Your task to perform on an android device: turn on notifications settings in the gmail app Image 0: 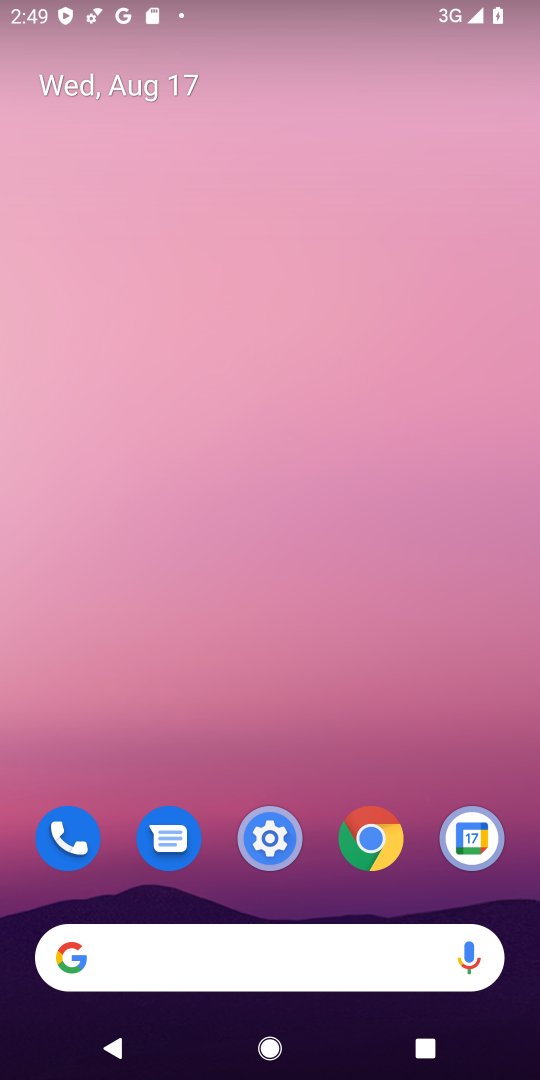
Step 0: drag from (301, 848) to (453, 21)
Your task to perform on an android device: turn on notifications settings in the gmail app Image 1: 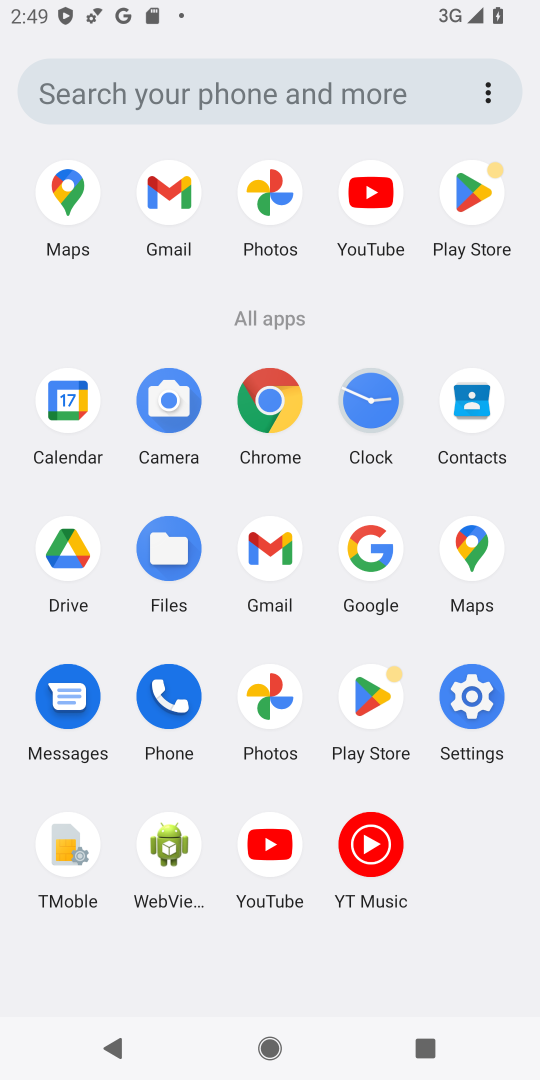
Step 1: click (272, 556)
Your task to perform on an android device: turn on notifications settings in the gmail app Image 2: 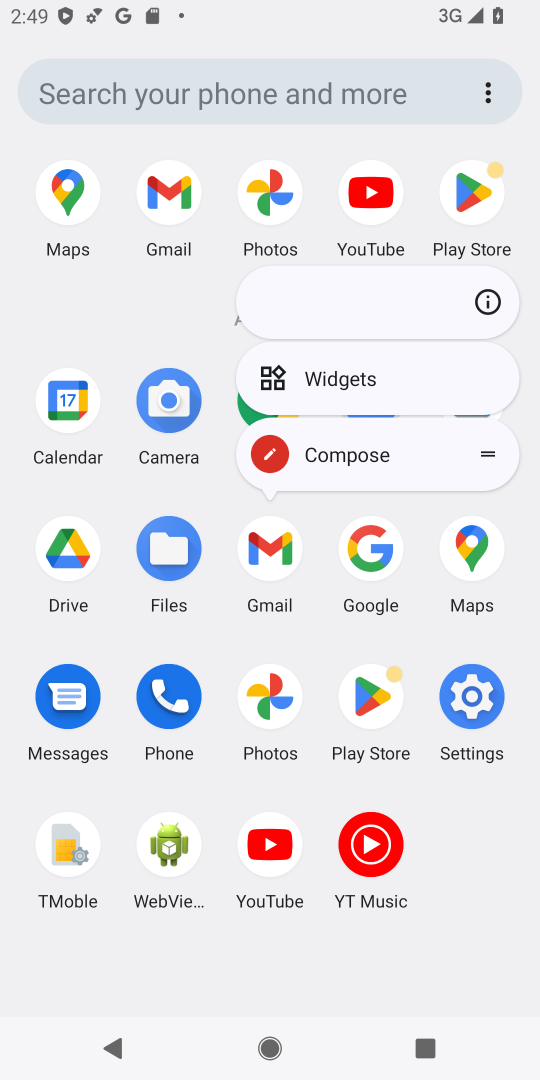
Step 2: click (480, 309)
Your task to perform on an android device: turn on notifications settings in the gmail app Image 3: 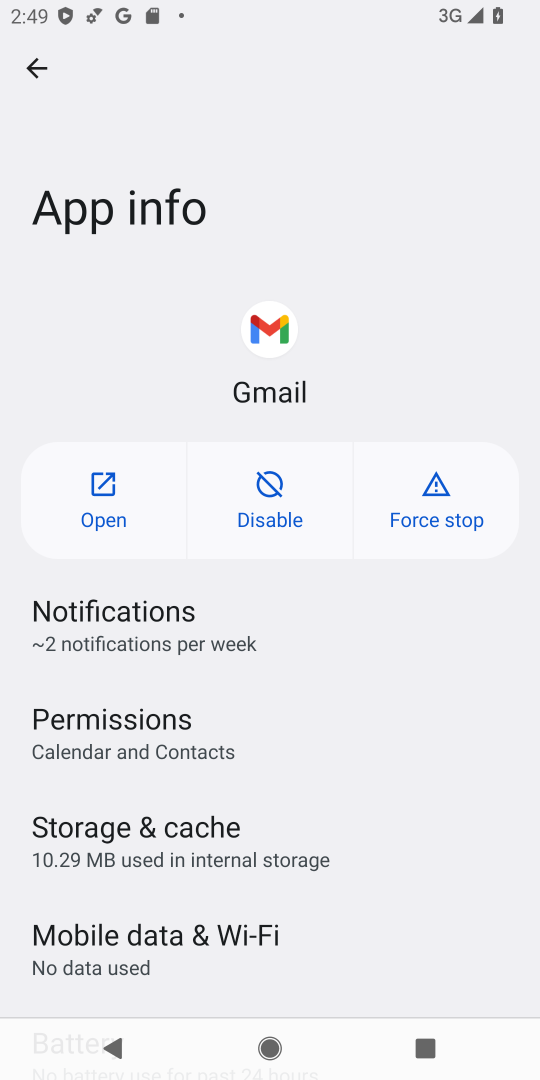
Step 3: click (96, 627)
Your task to perform on an android device: turn on notifications settings in the gmail app Image 4: 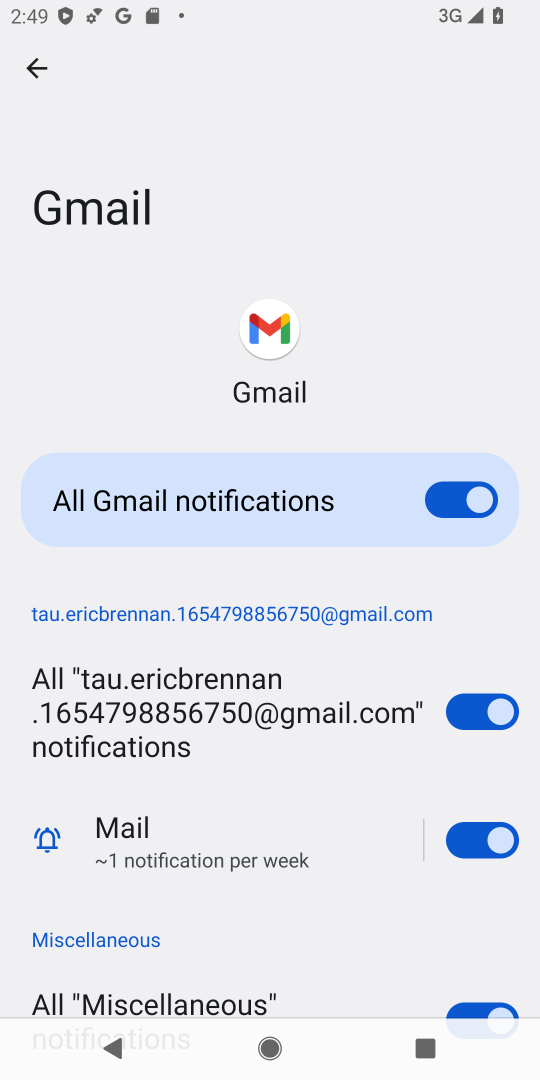
Step 4: task complete